Your task to perform on an android device: turn pop-ups on in chrome Image 0: 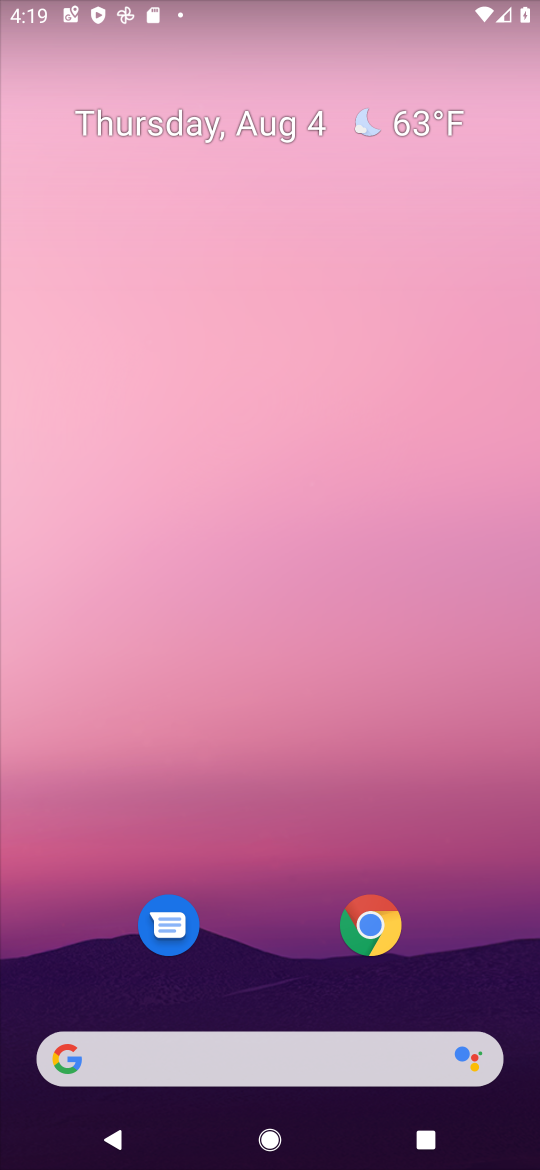
Step 0: click (379, 926)
Your task to perform on an android device: turn pop-ups on in chrome Image 1: 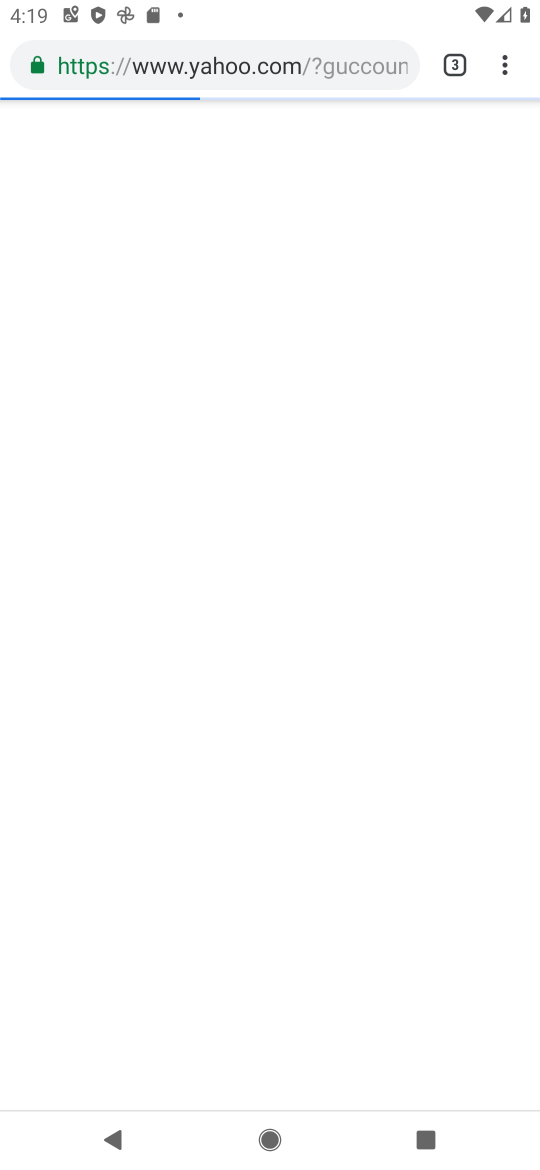
Step 1: click (495, 77)
Your task to perform on an android device: turn pop-ups on in chrome Image 2: 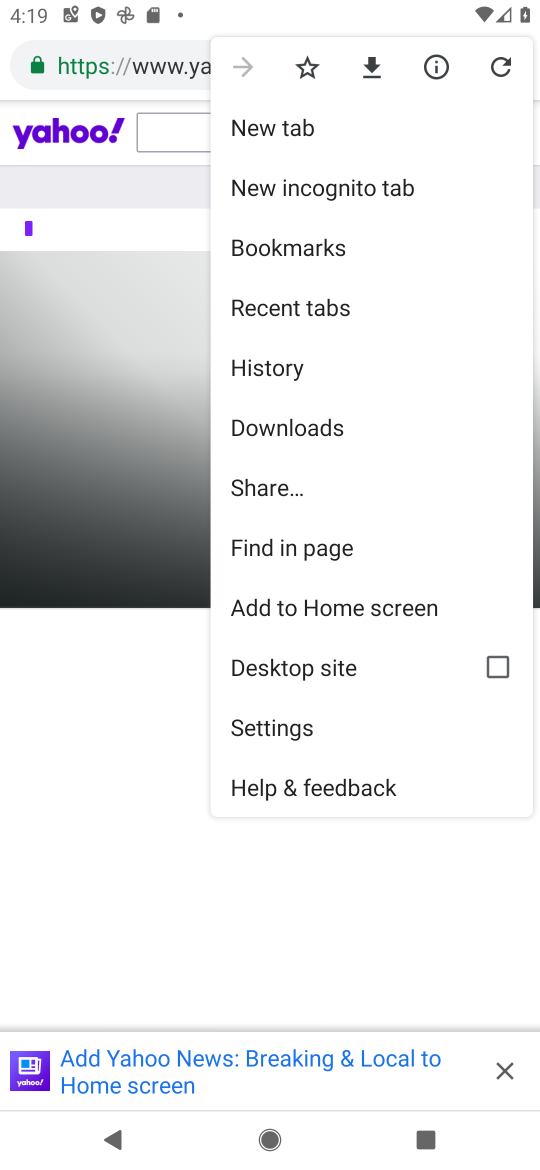
Step 2: click (306, 728)
Your task to perform on an android device: turn pop-ups on in chrome Image 3: 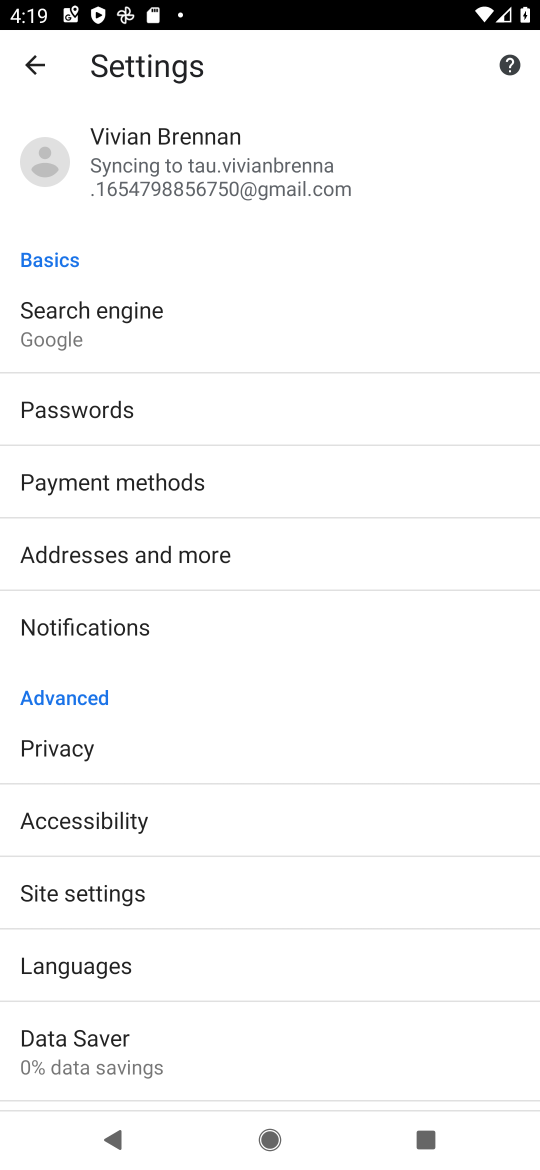
Step 3: click (132, 876)
Your task to perform on an android device: turn pop-ups on in chrome Image 4: 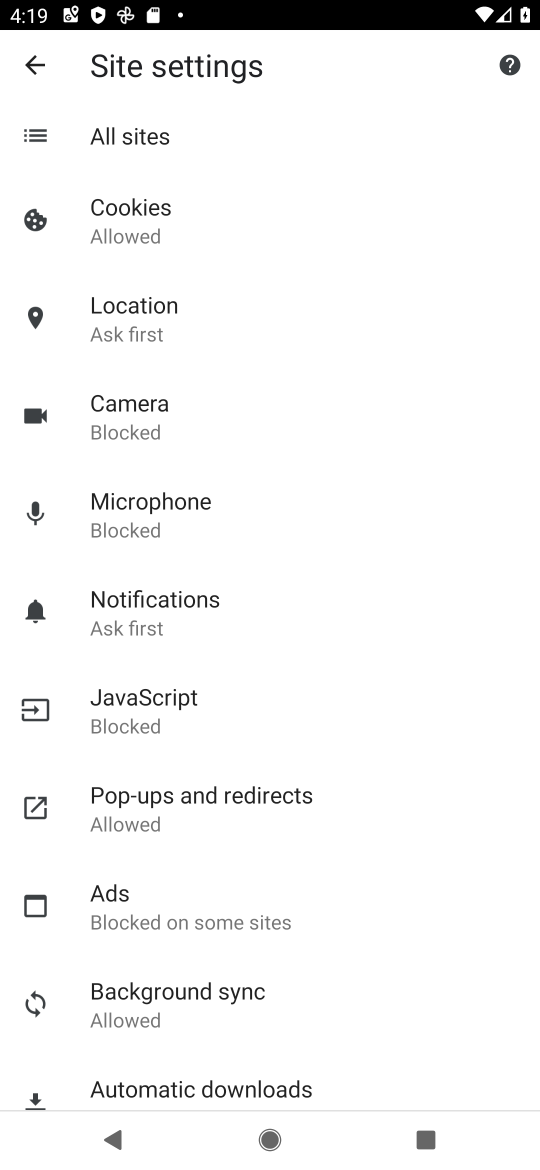
Step 4: click (154, 798)
Your task to perform on an android device: turn pop-ups on in chrome Image 5: 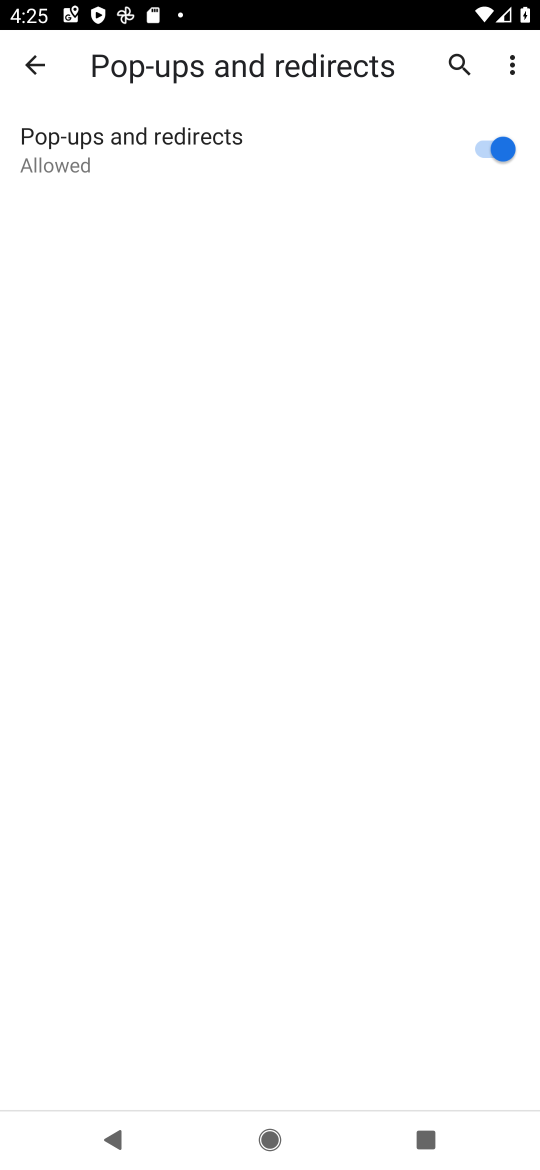
Step 5: task complete